Your task to perform on an android device: turn smart compose on in the gmail app Image 0: 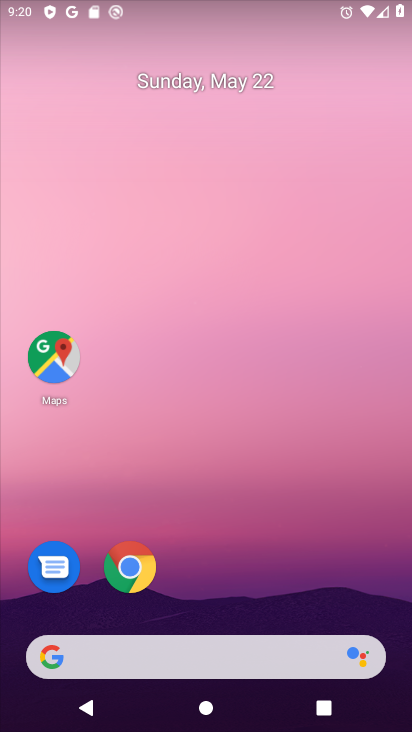
Step 0: drag from (226, 590) to (264, 54)
Your task to perform on an android device: turn smart compose on in the gmail app Image 1: 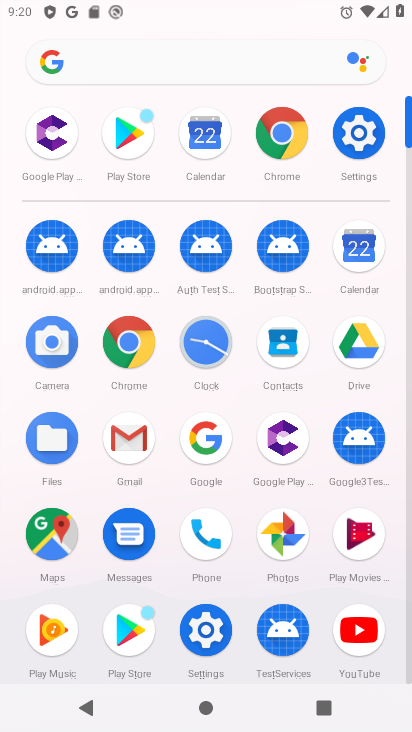
Step 1: click (126, 436)
Your task to perform on an android device: turn smart compose on in the gmail app Image 2: 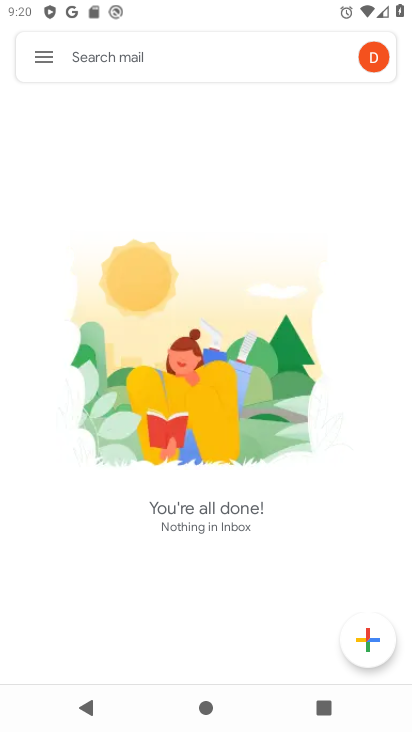
Step 2: click (38, 53)
Your task to perform on an android device: turn smart compose on in the gmail app Image 3: 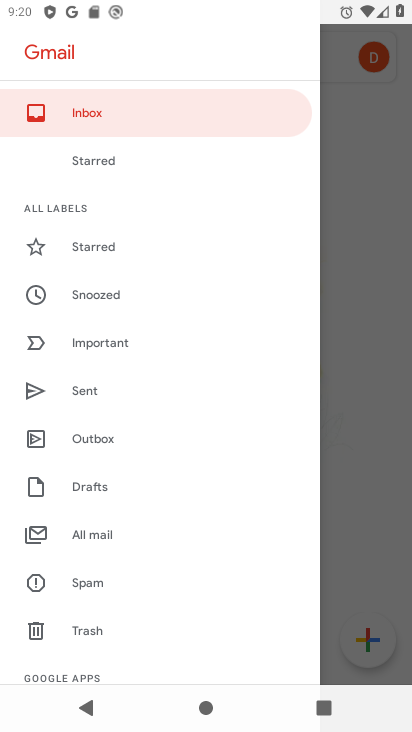
Step 3: drag from (136, 588) to (144, 156)
Your task to perform on an android device: turn smart compose on in the gmail app Image 4: 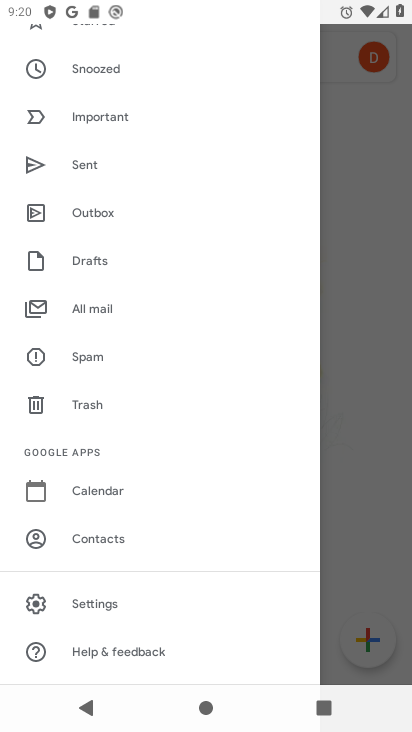
Step 4: click (108, 605)
Your task to perform on an android device: turn smart compose on in the gmail app Image 5: 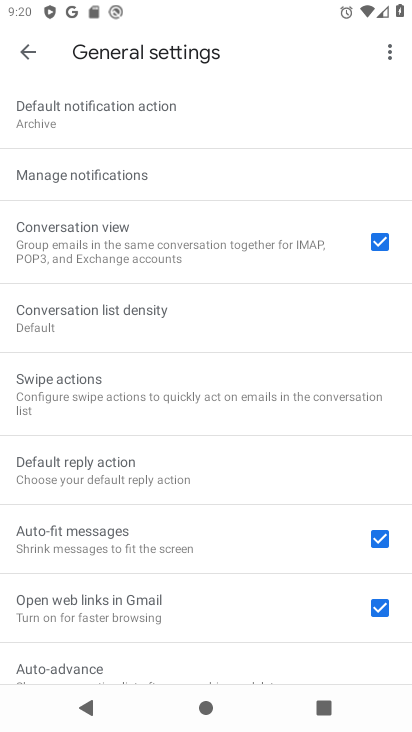
Step 5: click (26, 53)
Your task to perform on an android device: turn smart compose on in the gmail app Image 6: 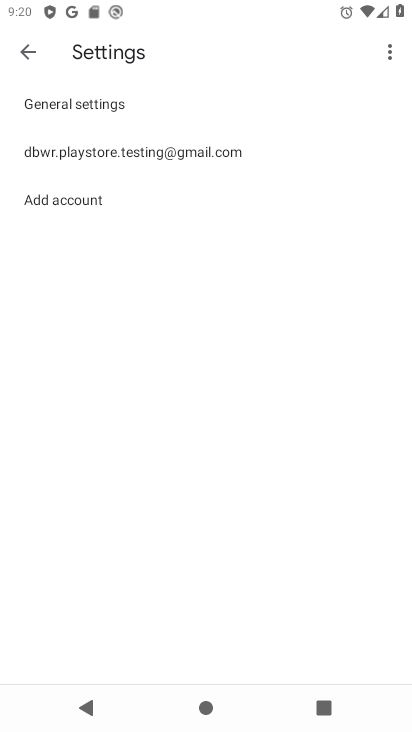
Step 6: click (181, 157)
Your task to perform on an android device: turn smart compose on in the gmail app Image 7: 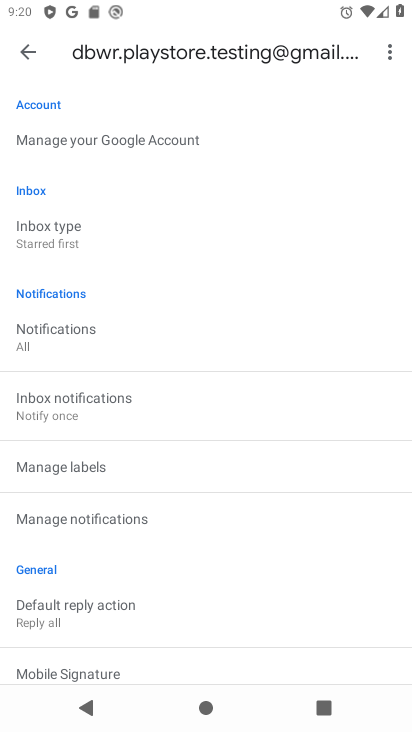
Step 7: task complete